Your task to perform on an android device: Go to calendar. Show me events next week Image 0: 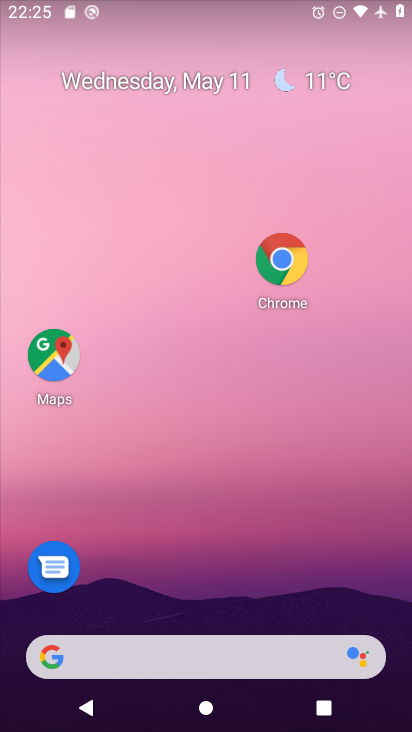
Step 0: drag from (154, 654) to (246, 182)
Your task to perform on an android device: Go to calendar. Show me events next week Image 1: 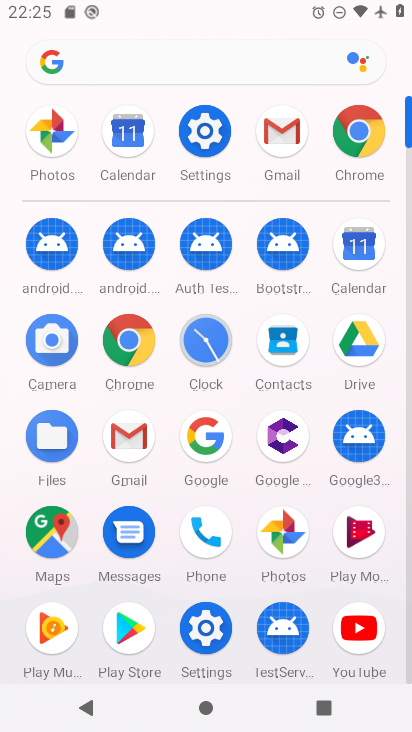
Step 1: click (360, 247)
Your task to perform on an android device: Go to calendar. Show me events next week Image 2: 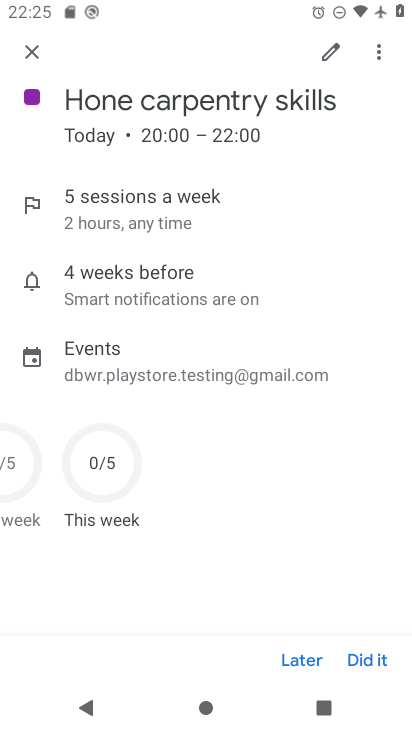
Step 2: click (34, 52)
Your task to perform on an android device: Go to calendar. Show me events next week Image 3: 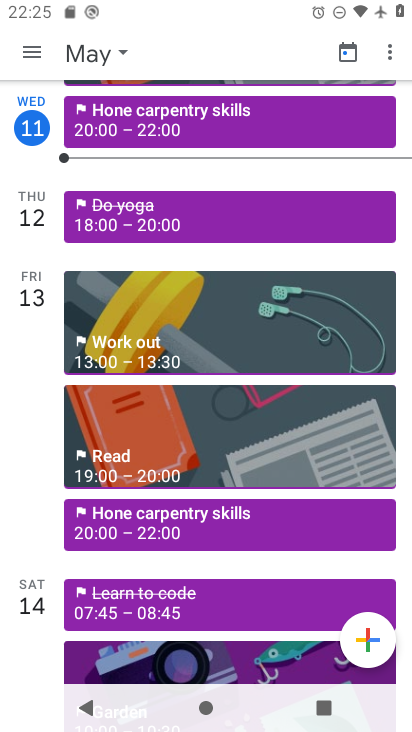
Step 3: click (96, 54)
Your task to perform on an android device: Go to calendar. Show me events next week Image 4: 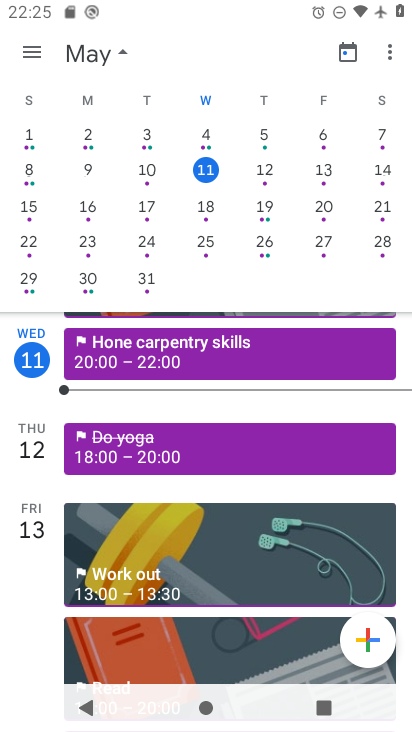
Step 4: click (35, 203)
Your task to perform on an android device: Go to calendar. Show me events next week Image 5: 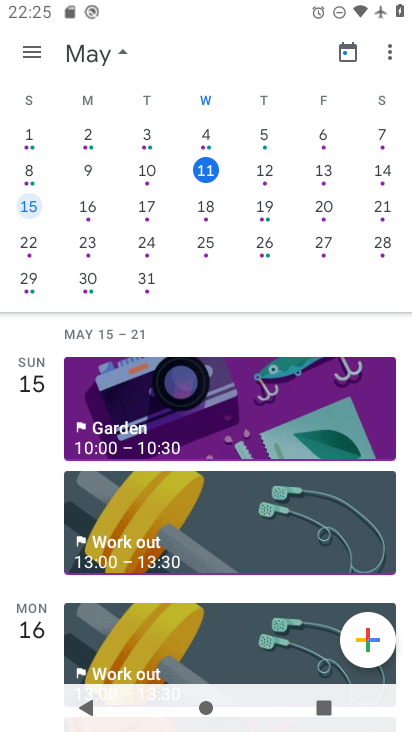
Step 5: click (32, 51)
Your task to perform on an android device: Go to calendar. Show me events next week Image 6: 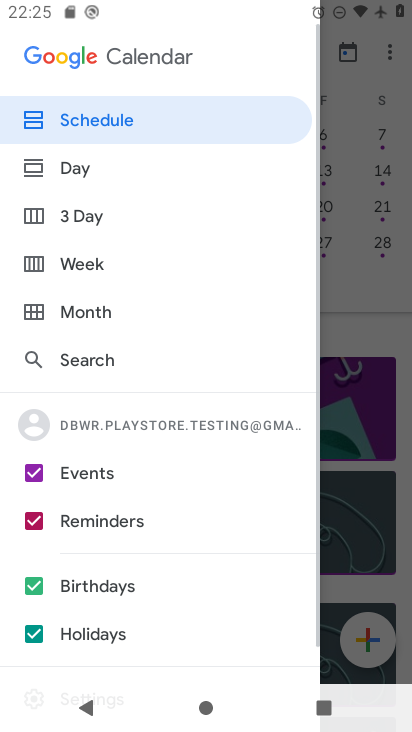
Step 6: click (84, 268)
Your task to perform on an android device: Go to calendar. Show me events next week Image 7: 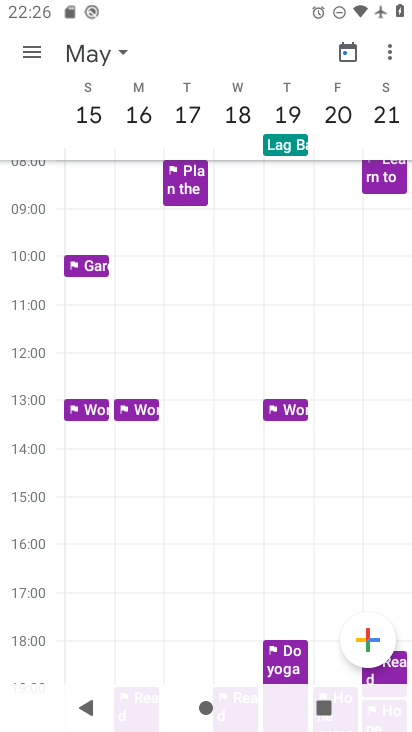
Step 7: click (32, 49)
Your task to perform on an android device: Go to calendar. Show me events next week Image 8: 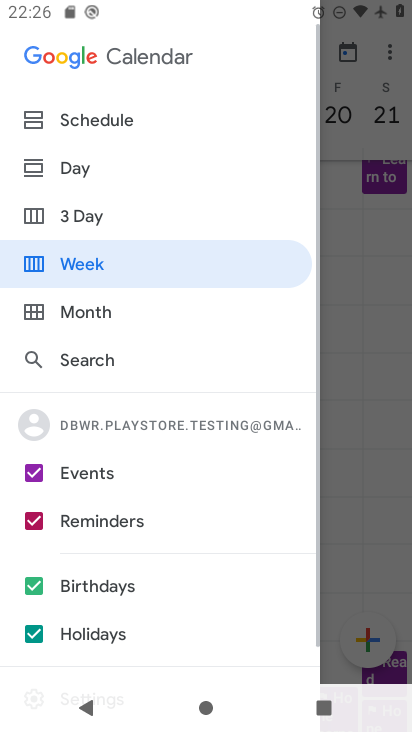
Step 8: click (82, 116)
Your task to perform on an android device: Go to calendar. Show me events next week Image 9: 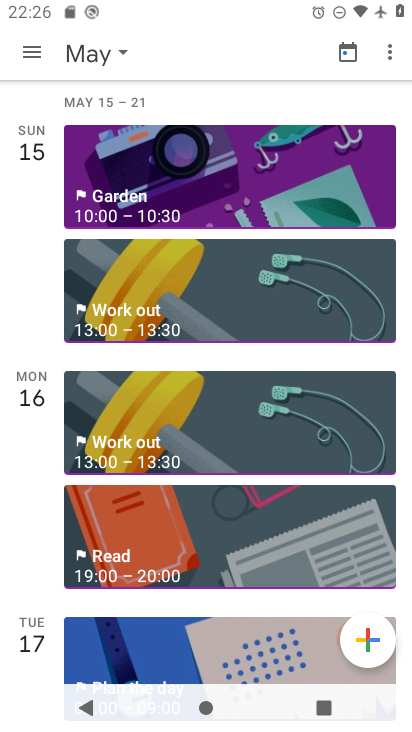
Step 9: task complete